Your task to perform on an android device: turn off notifications in google photos Image 0: 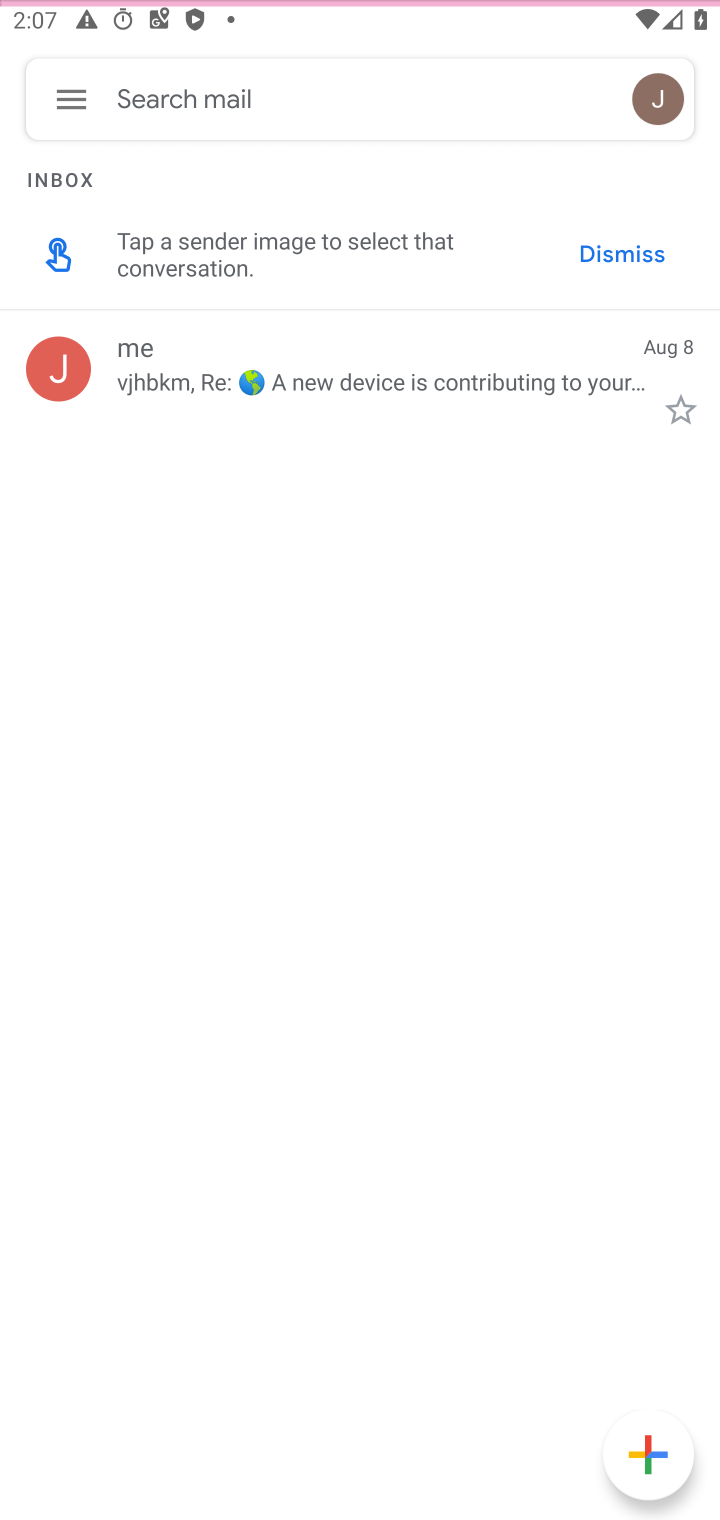
Step 0: press home button
Your task to perform on an android device: turn off notifications in google photos Image 1: 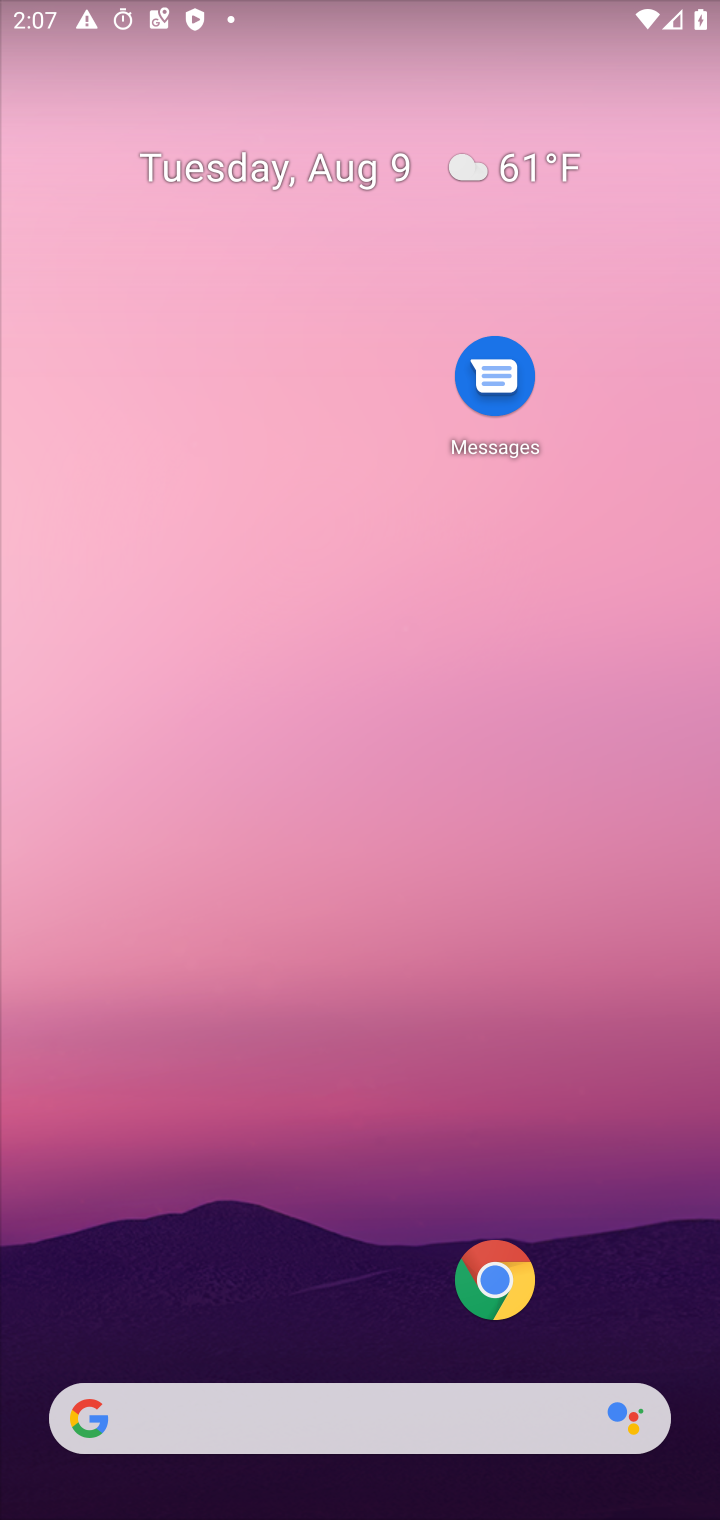
Step 1: press home button
Your task to perform on an android device: turn off notifications in google photos Image 2: 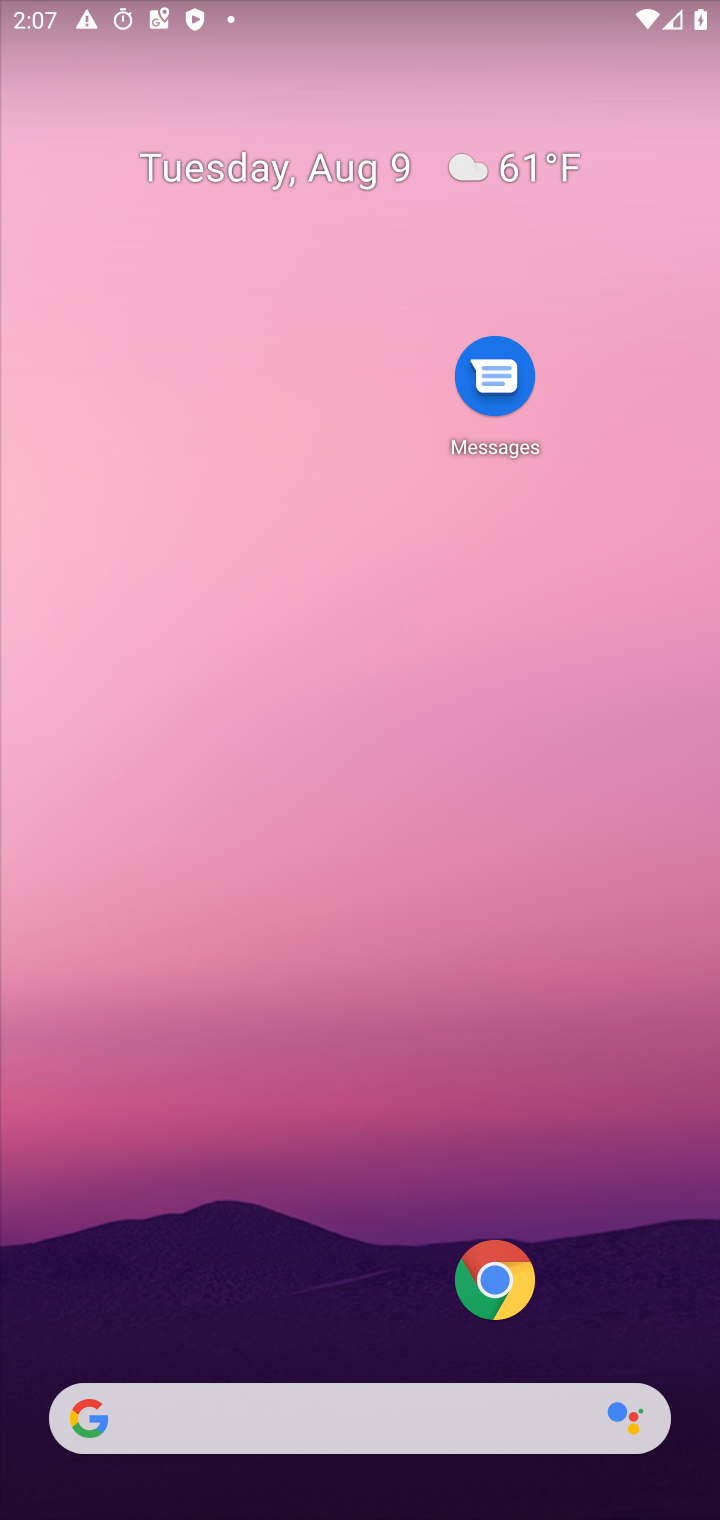
Step 2: drag from (384, 1373) to (626, 309)
Your task to perform on an android device: turn off notifications in google photos Image 3: 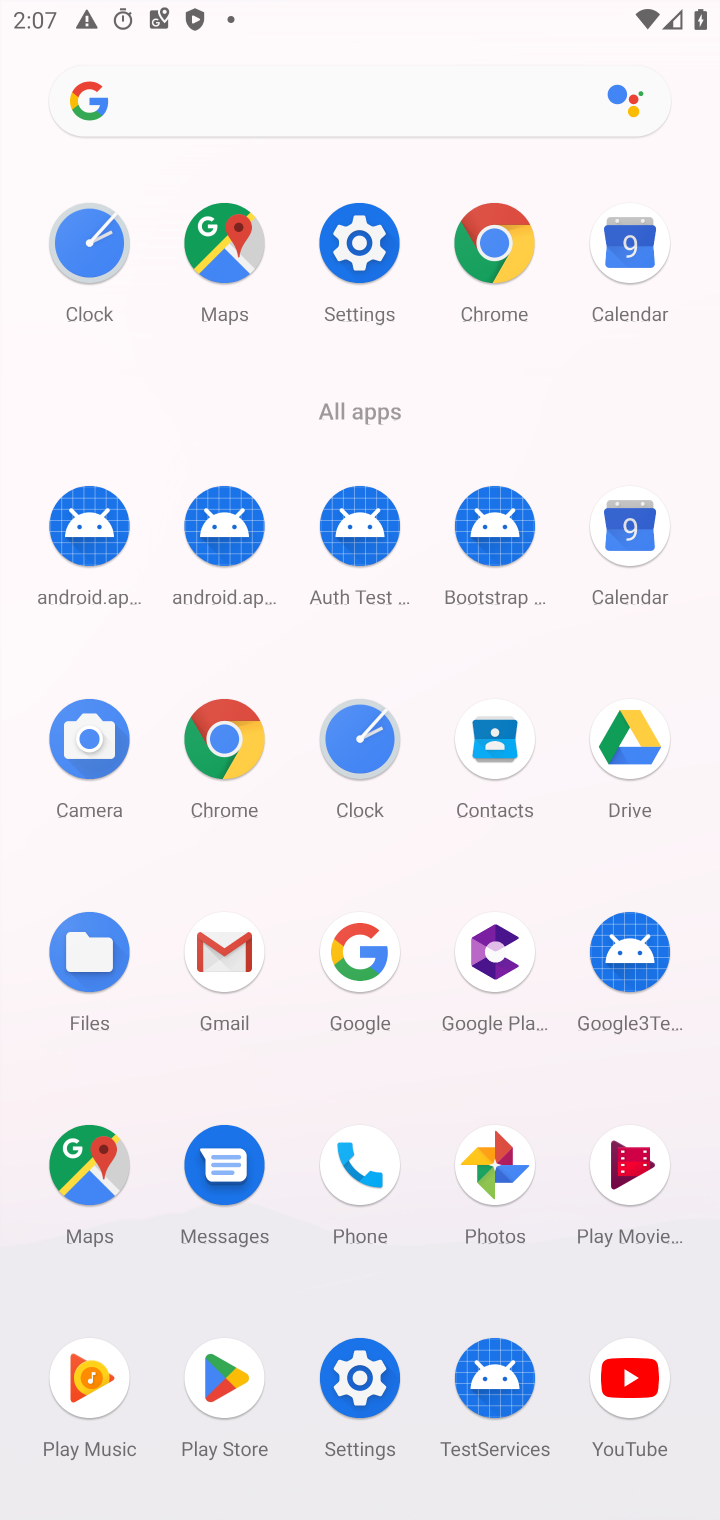
Step 3: click (497, 1147)
Your task to perform on an android device: turn off notifications in google photos Image 4: 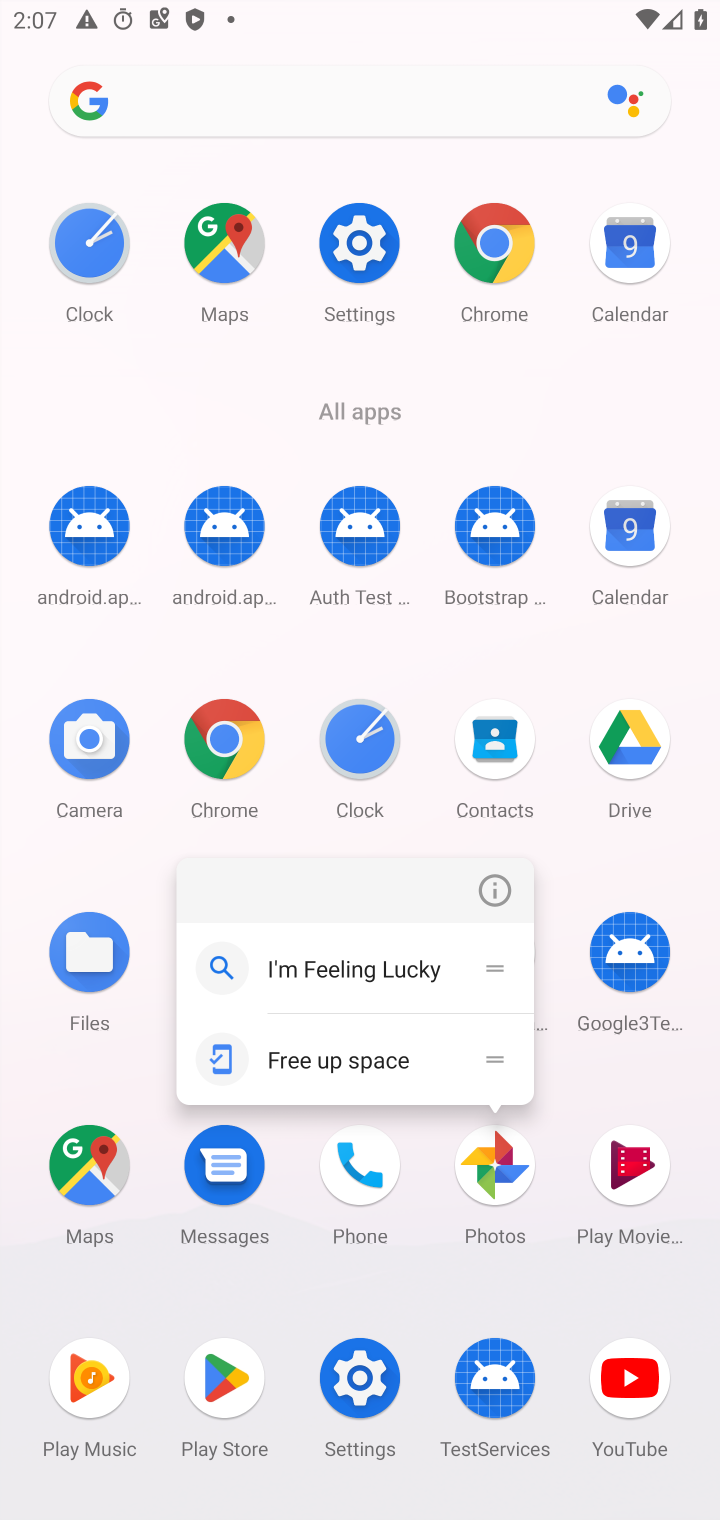
Step 4: click (489, 1154)
Your task to perform on an android device: turn off notifications in google photos Image 5: 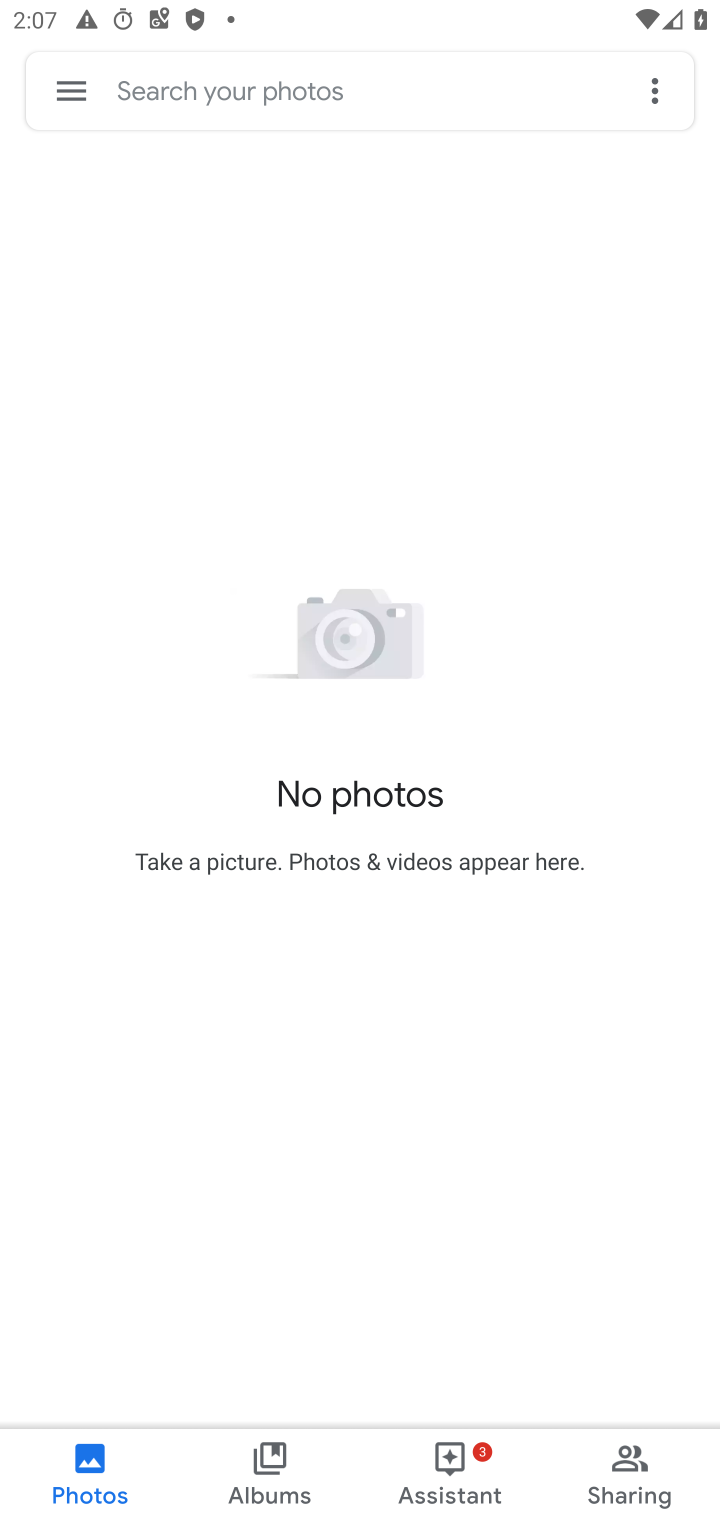
Step 5: click (64, 80)
Your task to perform on an android device: turn off notifications in google photos Image 6: 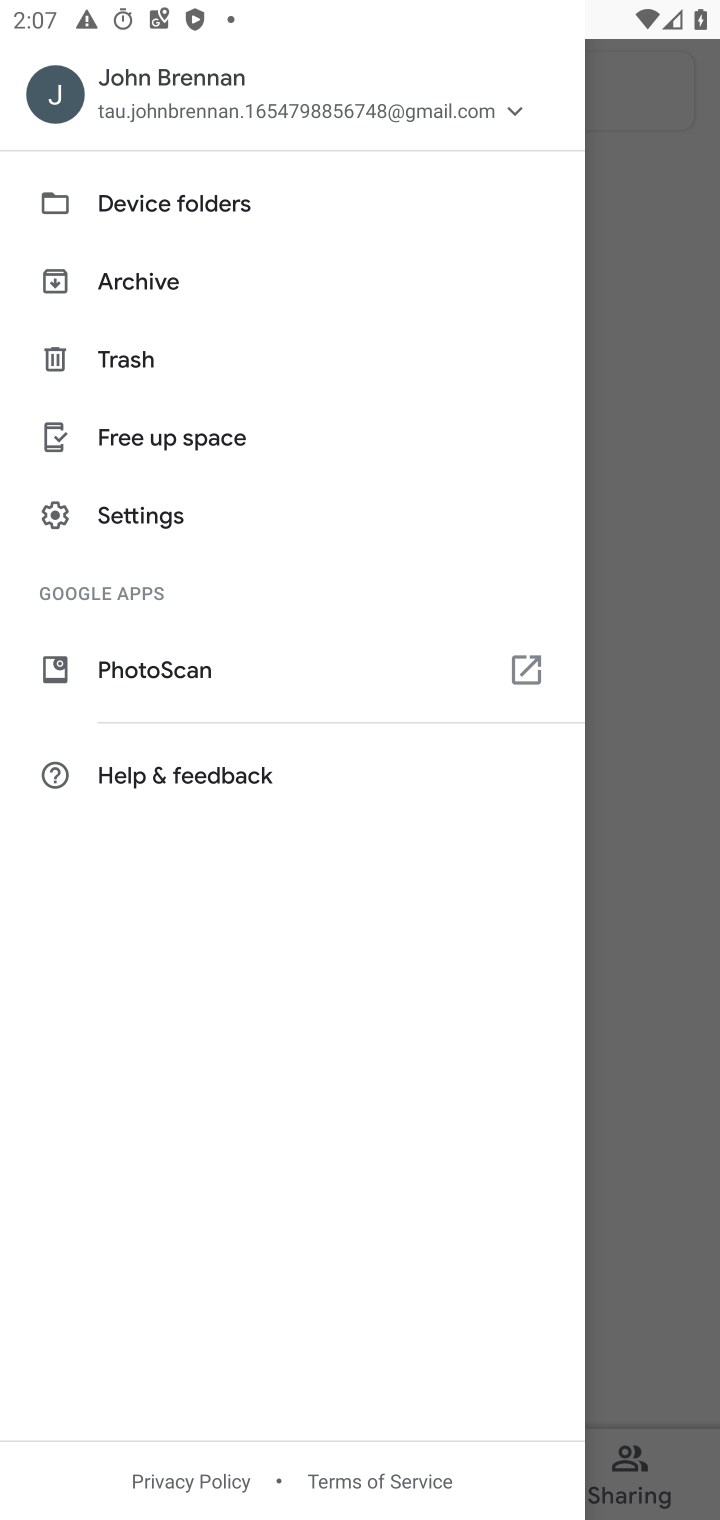
Step 6: click (155, 511)
Your task to perform on an android device: turn off notifications in google photos Image 7: 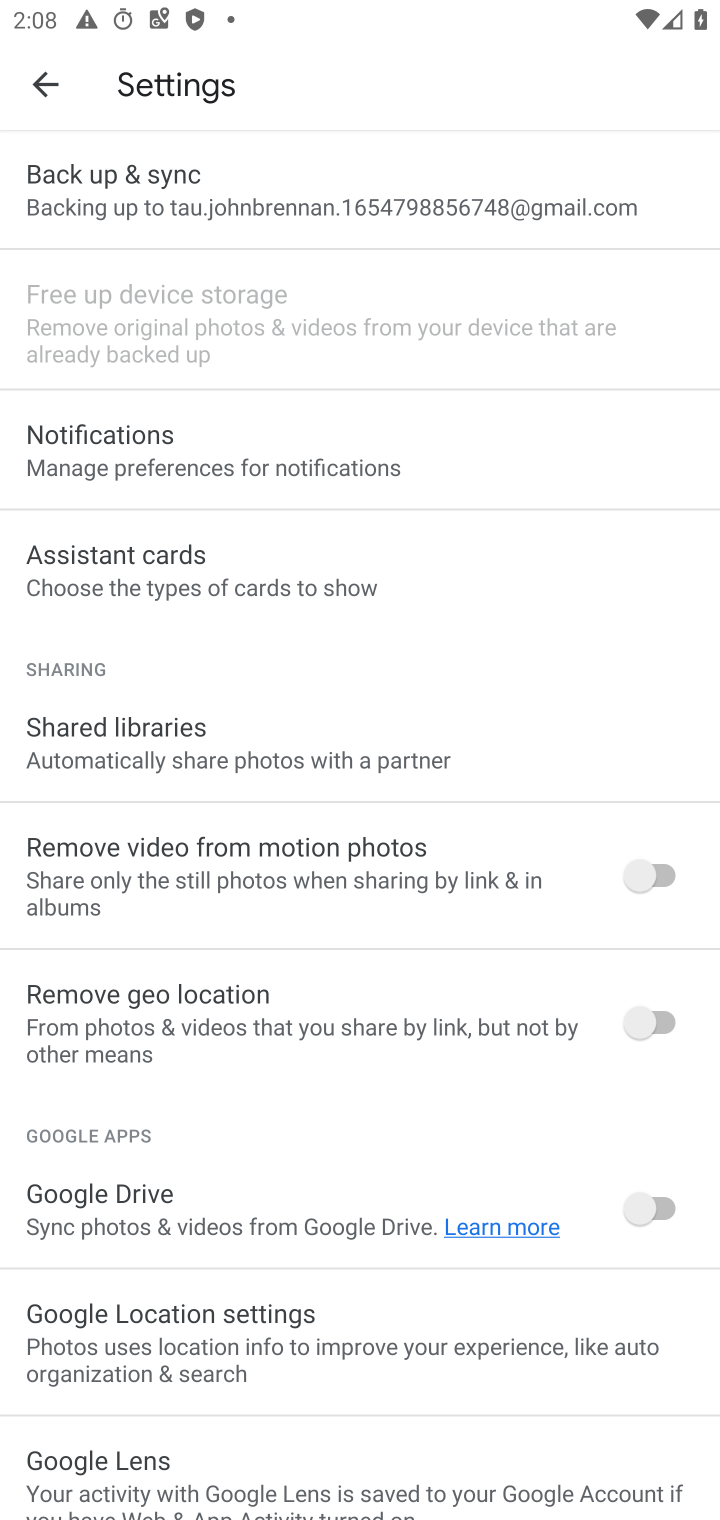
Step 7: click (294, 454)
Your task to perform on an android device: turn off notifications in google photos Image 8: 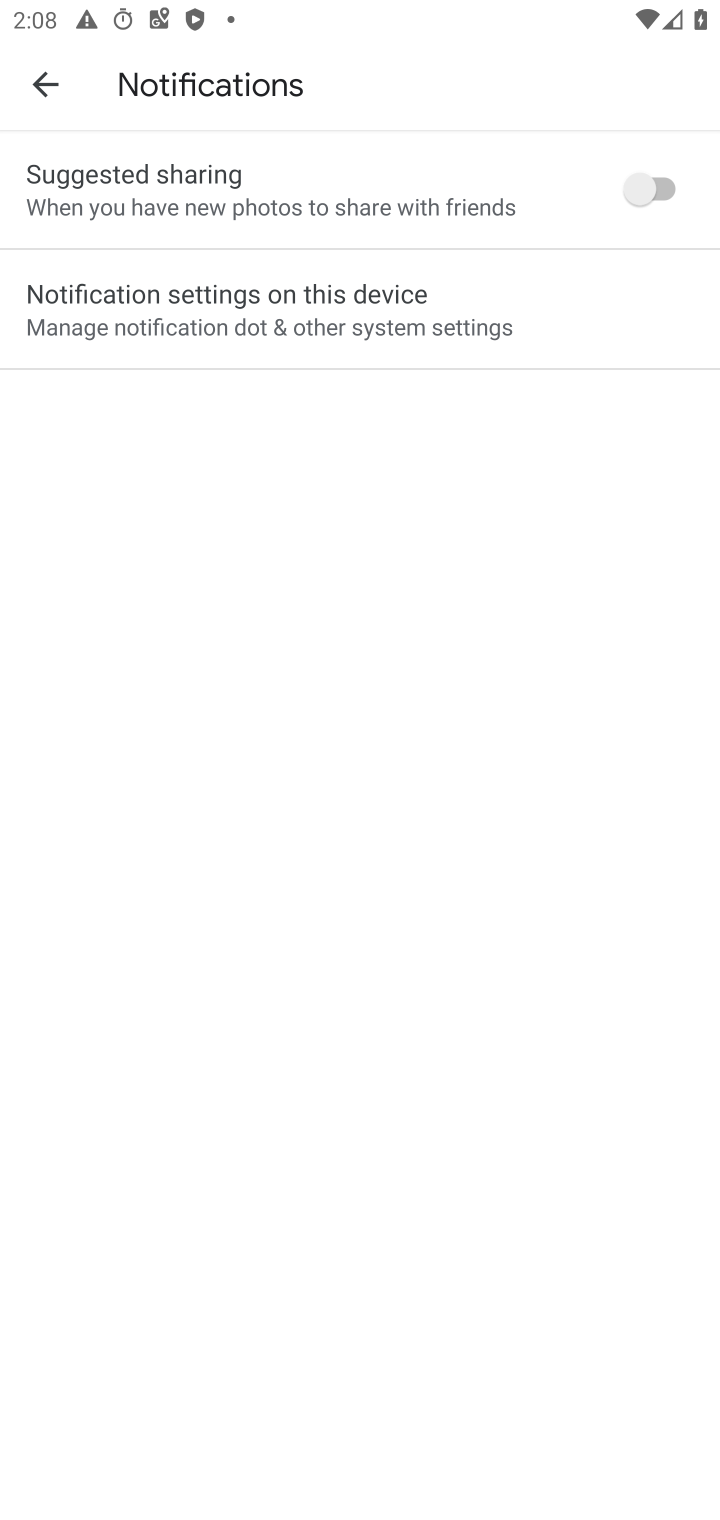
Step 8: click (399, 282)
Your task to perform on an android device: turn off notifications in google photos Image 9: 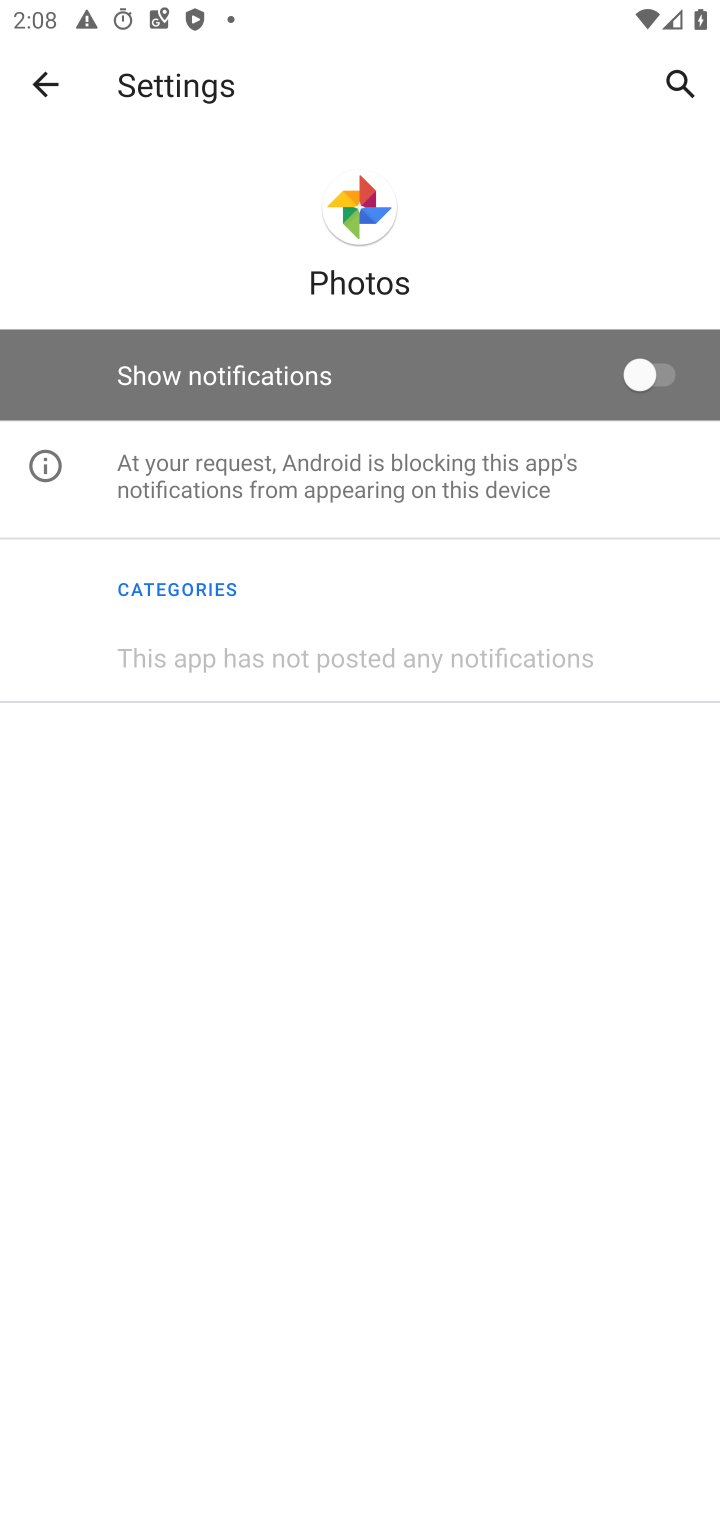
Step 9: task complete